Your task to perform on an android device: create a new album in the google photos Image 0: 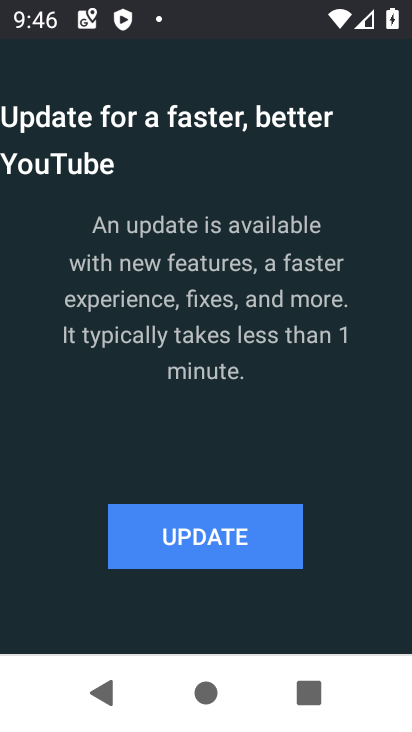
Step 0: press home button
Your task to perform on an android device: create a new album in the google photos Image 1: 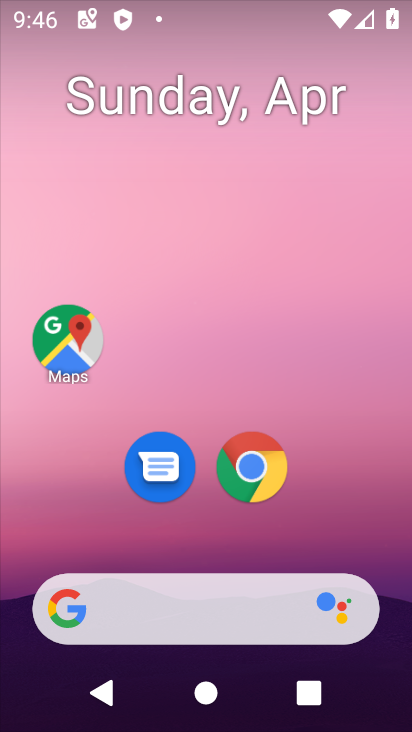
Step 1: drag from (199, 517) to (226, 58)
Your task to perform on an android device: create a new album in the google photos Image 2: 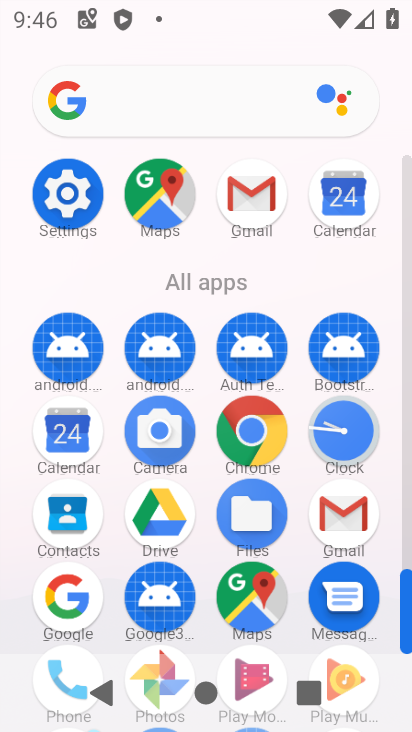
Step 2: click (154, 657)
Your task to perform on an android device: create a new album in the google photos Image 3: 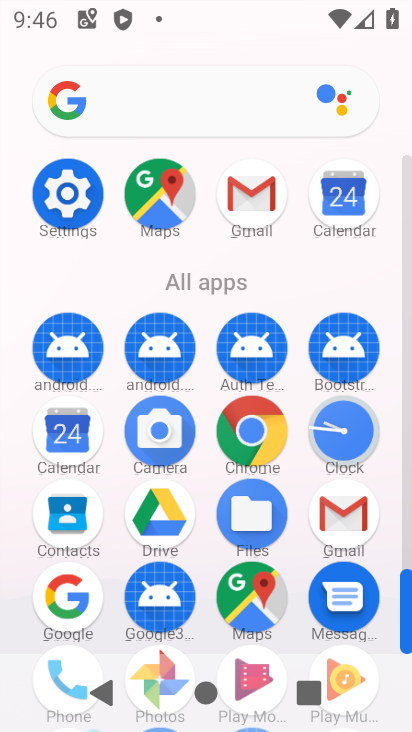
Step 3: drag from (203, 507) to (230, 193)
Your task to perform on an android device: create a new album in the google photos Image 4: 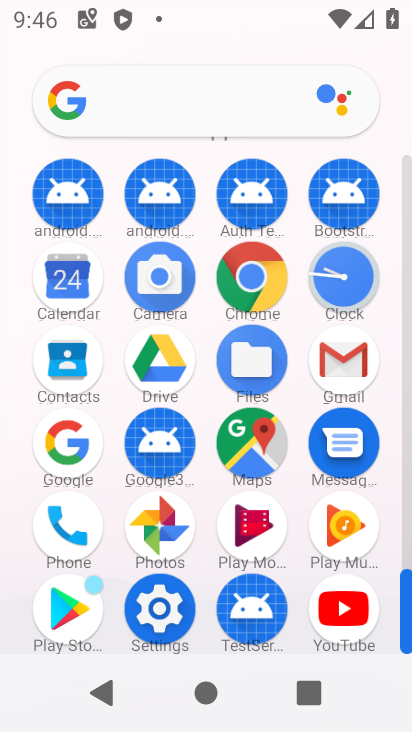
Step 4: click (157, 526)
Your task to perform on an android device: create a new album in the google photos Image 5: 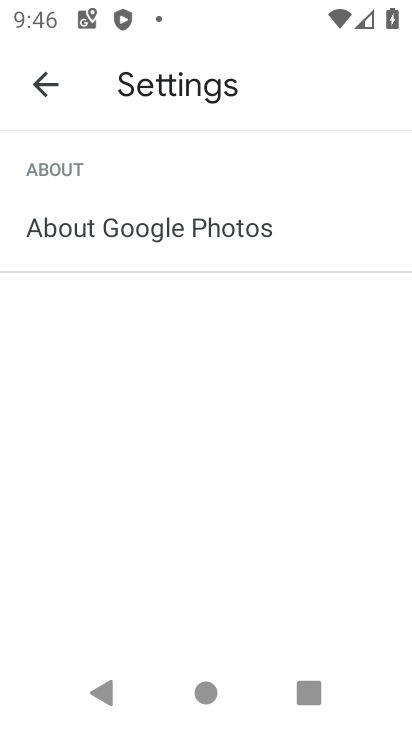
Step 5: click (57, 91)
Your task to perform on an android device: create a new album in the google photos Image 6: 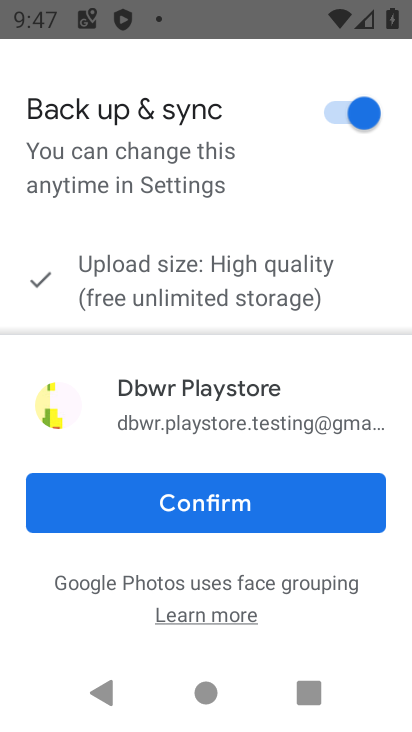
Step 6: click (205, 499)
Your task to perform on an android device: create a new album in the google photos Image 7: 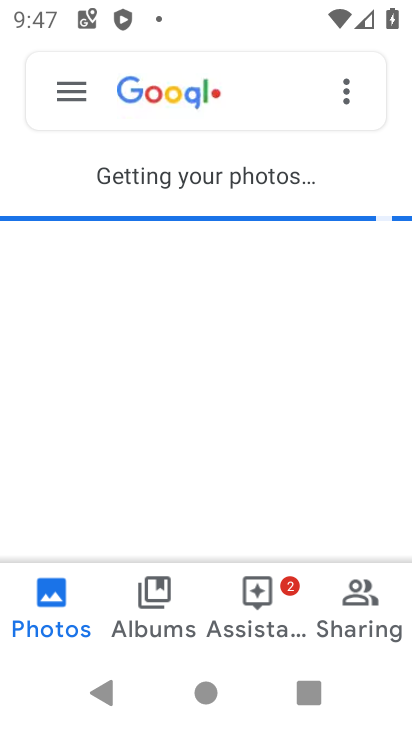
Step 7: click (158, 609)
Your task to perform on an android device: create a new album in the google photos Image 8: 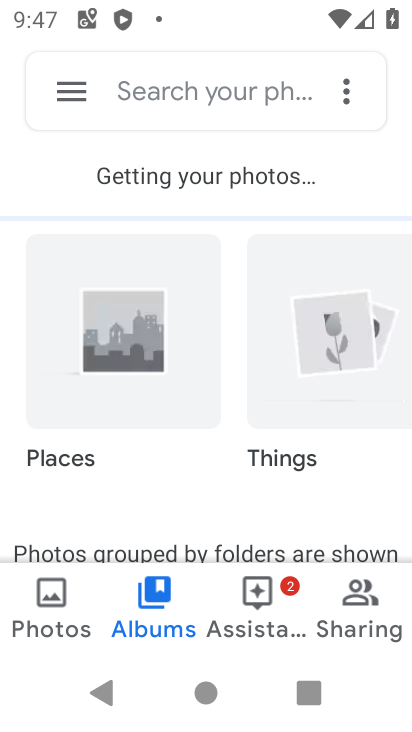
Step 8: drag from (189, 466) to (233, 102)
Your task to perform on an android device: create a new album in the google photos Image 9: 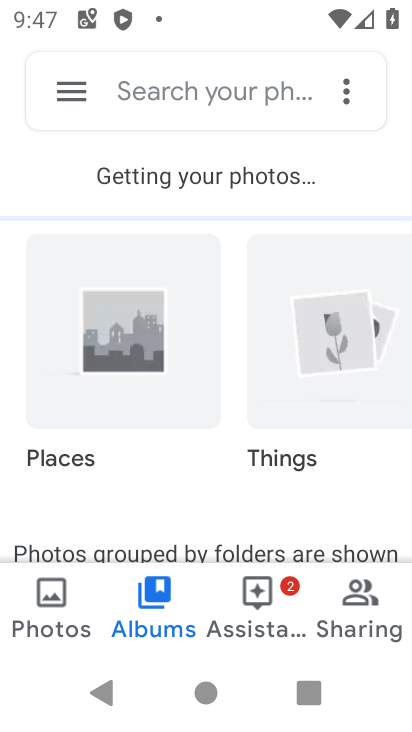
Step 9: drag from (219, 432) to (228, 138)
Your task to perform on an android device: create a new album in the google photos Image 10: 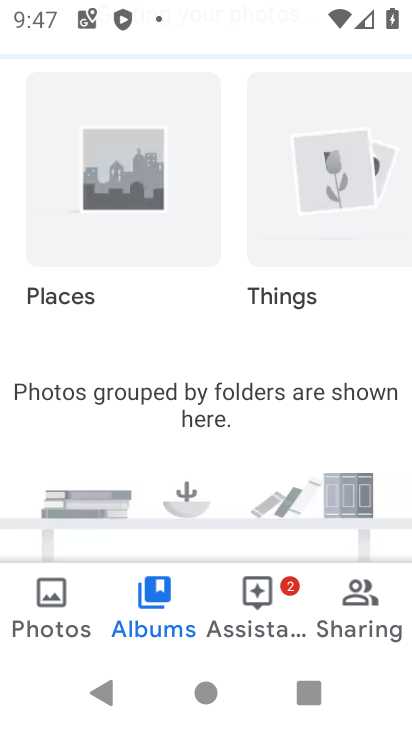
Step 10: drag from (234, 206) to (213, 425)
Your task to perform on an android device: create a new album in the google photos Image 11: 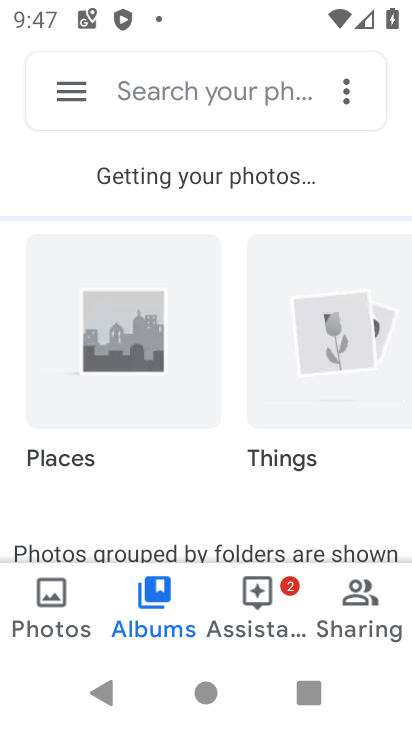
Step 11: click (342, 90)
Your task to perform on an android device: create a new album in the google photos Image 12: 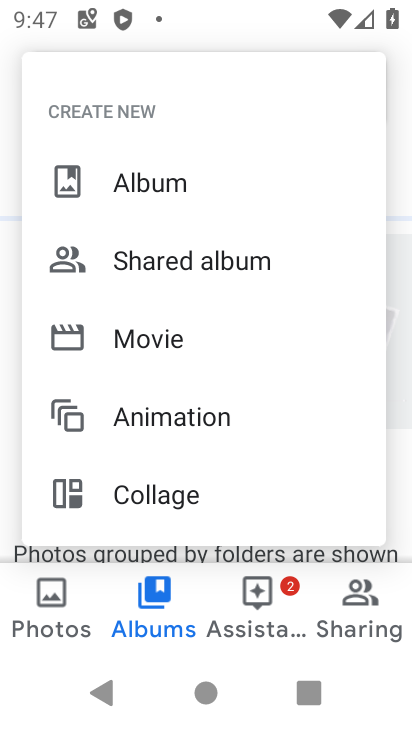
Step 12: click (166, 183)
Your task to perform on an android device: create a new album in the google photos Image 13: 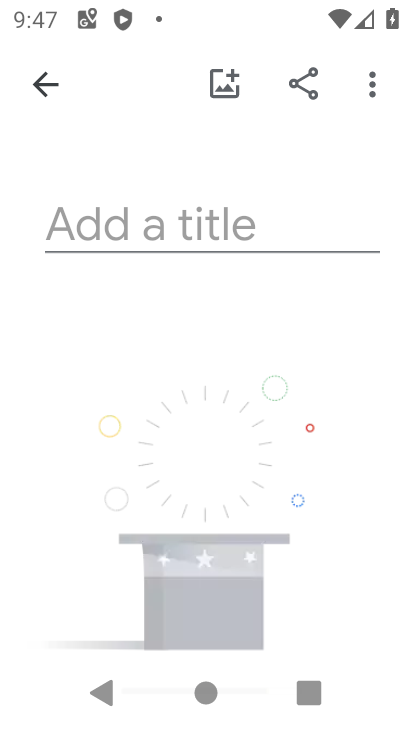
Step 13: click (149, 221)
Your task to perform on an android device: create a new album in the google photos Image 14: 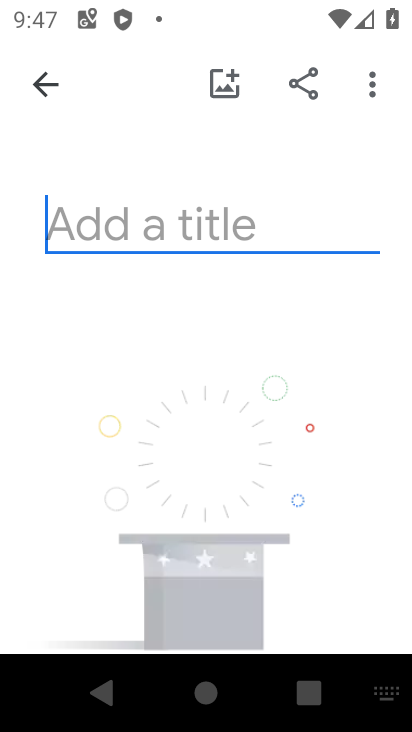
Step 14: type "tg"
Your task to perform on an android device: create a new album in the google photos Image 15: 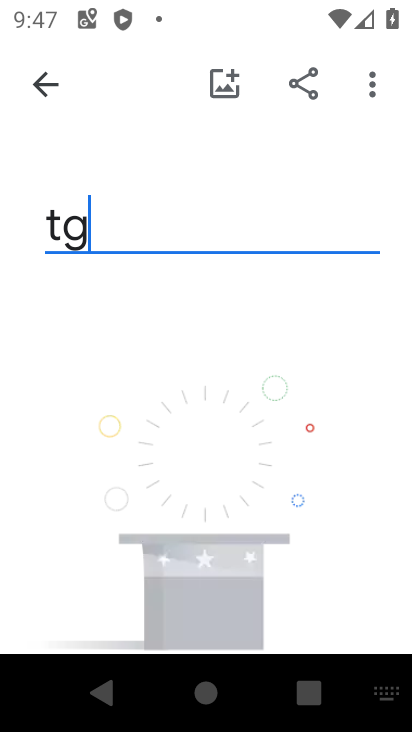
Step 15: click (374, 89)
Your task to perform on an android device: create a new album in the google photos Image 16: 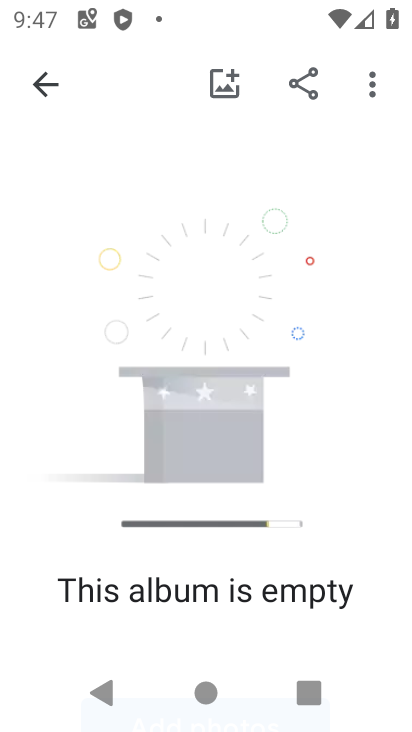
Step 16: click (260, 393)
Your task to perform on an android device: create a new album in the google photos Image 17: 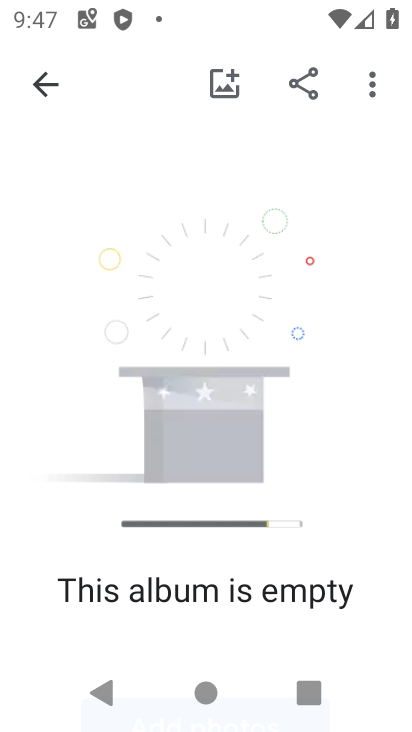
Step 17: task complete